Your task to perform on an android device: create a new album in the google photos Image 0: 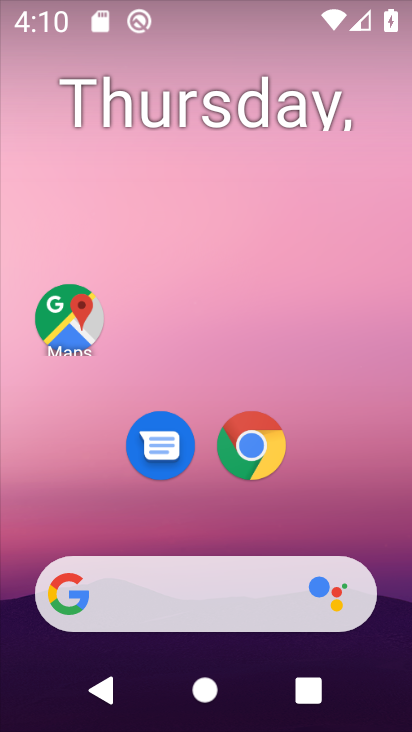
Step 0: drag from (370, 440) to (394, 258)
Your task to perform on an android device: create a new album in the google photos Image 1: 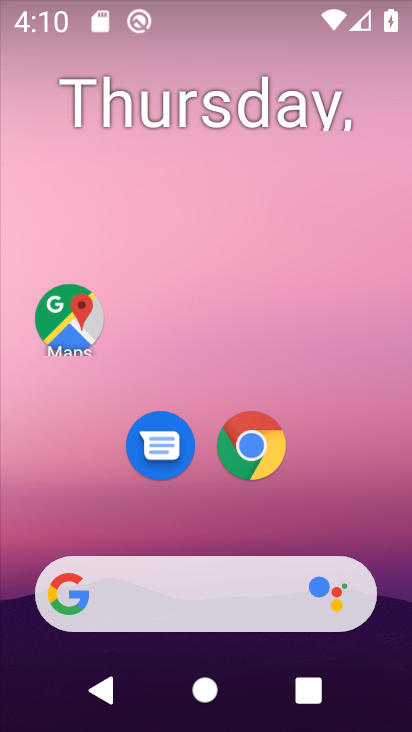
Step 1: click (388, 107)
Your task to perform on an android device: create a new album in the google photos Image 2: 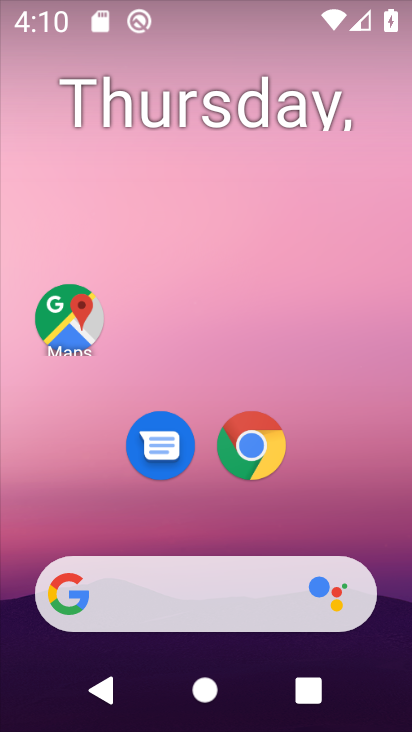
Step 2: drag from (325, 381) to (340, 104)
Your task to perform on an android device: create a new album in the google photos Image 3: 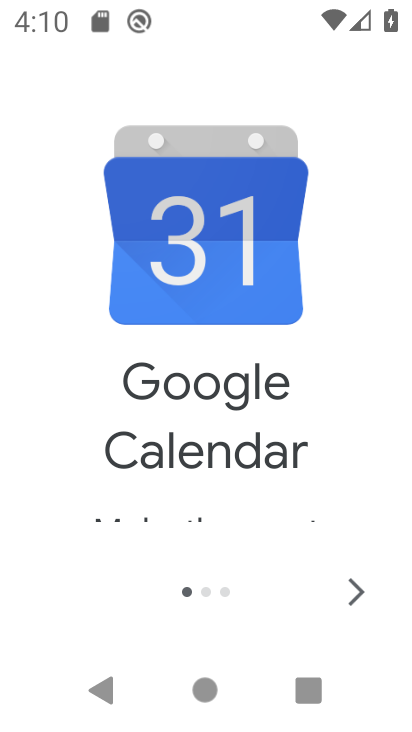
Step 3: press home button
Your task to perform on an android device: create a new album in the google photos Image 4: 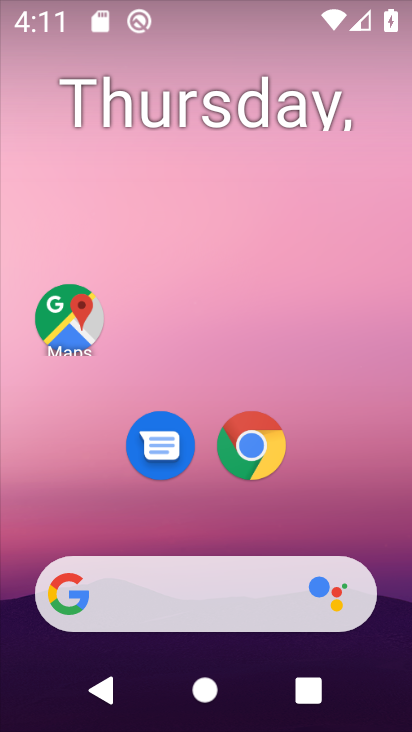
Step 4: drag from (308, 492) to (352, 101)
Your task to perform on an android device: create a new album in the google photos Image 5: 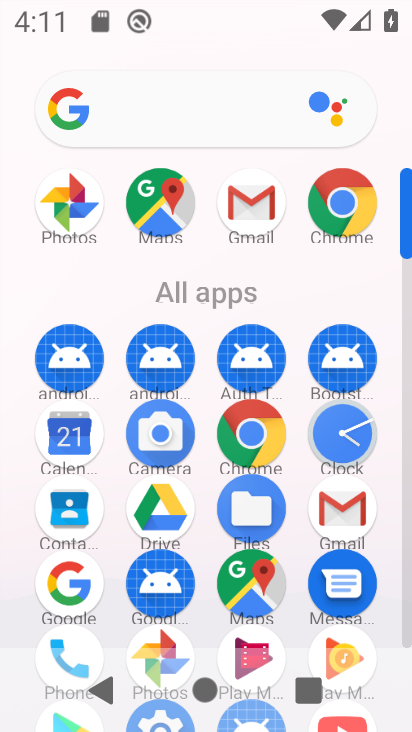
Step 5: click (62, 206)
Your task to perform on an android device: create a new album in the google photos Image 6: 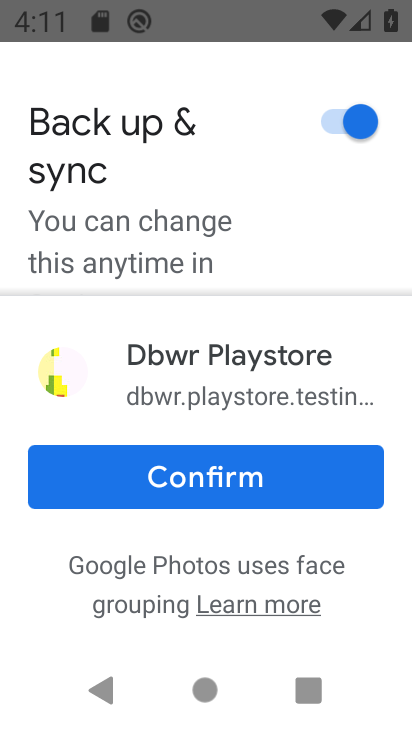
Step 6: click (269, 486)
Your task to perform on an android device: create a new album in the google photos Image 7: 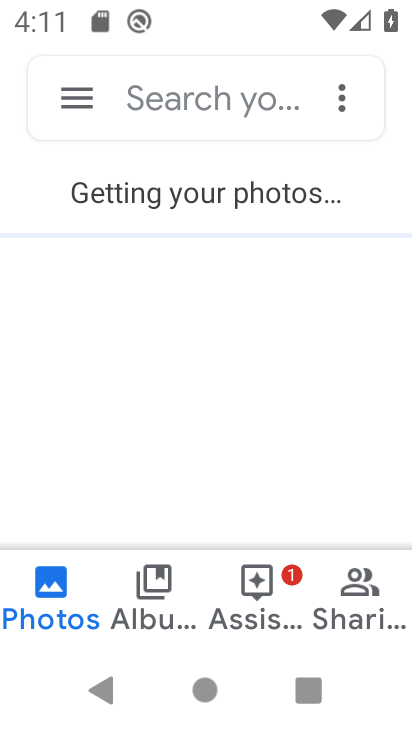
Step 7: click (43, 573)
Your task to perform on an android device: create a new album in the google photos Image 8: 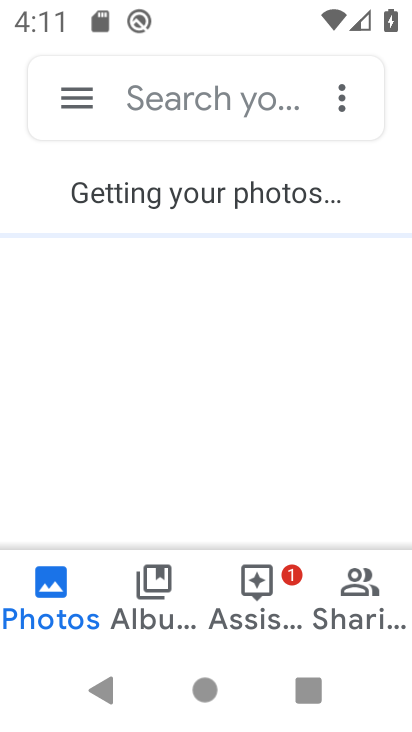
Step 8: click (143, 390)
Your task to perform on an android device: create a new album in the google photos Image 9: 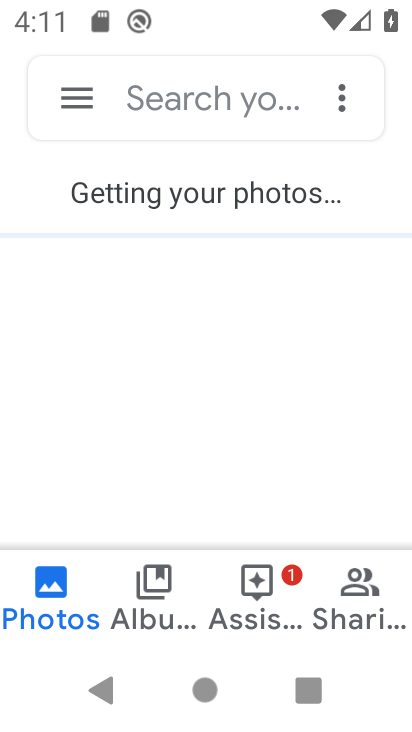
Step 9: click (132, 182)
Your task to perform on an android device: create a new album in the google photos Image 10: 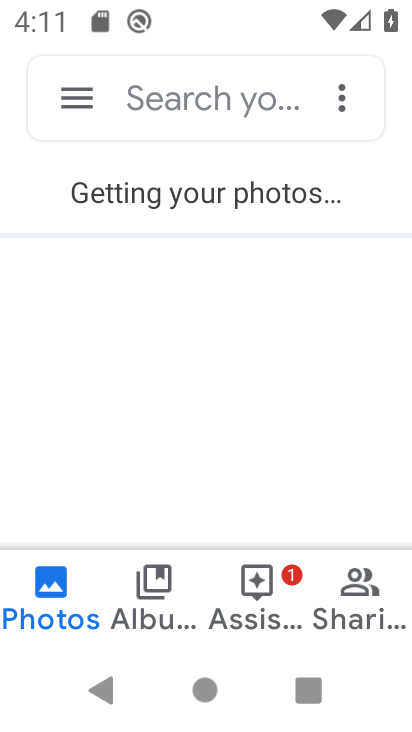
Step 10: click (66, 101)
Your task to perform on an android device: create a new album in the google photos Image 11: 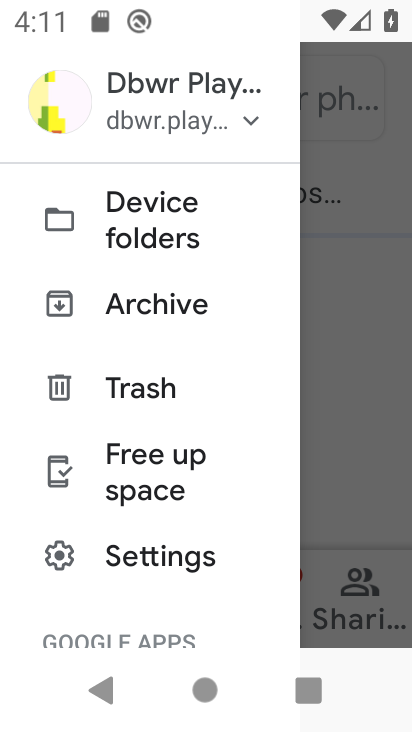
Step 11: click (329, 396)
Your task to perform on an android device: create a new album in the google photos Image 12: 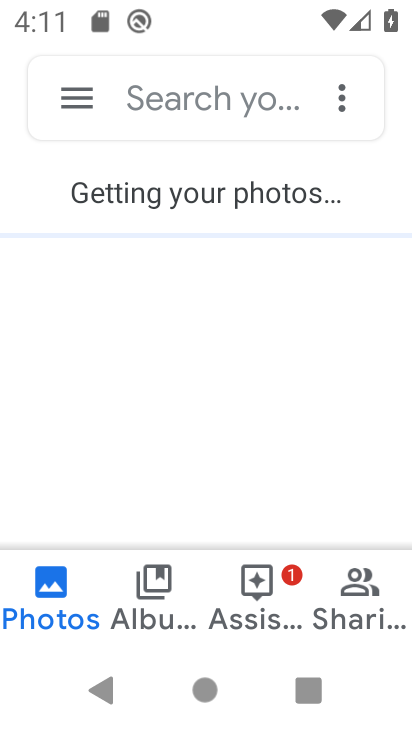
Step 12: click (179, 183)
Your task to perform on an android device: create a new album in the google photos Image 13: 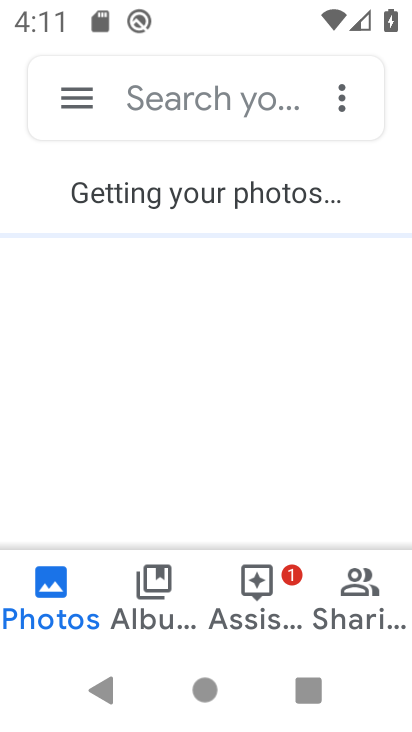
Step 13: click (163, 592)
Your task to perform on an android device: create a new album in the google photos Image 14: 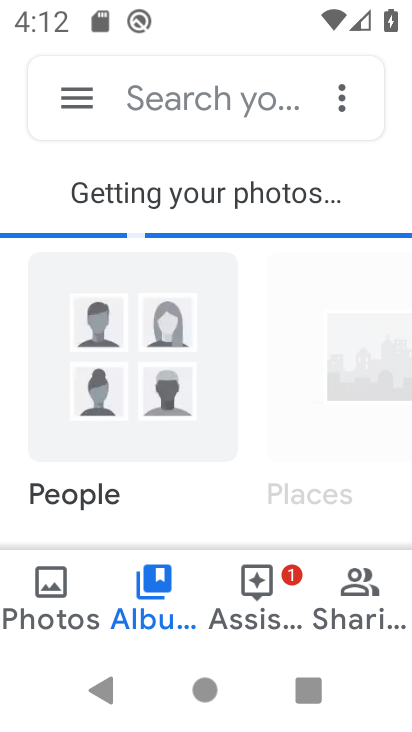
Step 14: drag from (352, 430) to (144, 416)
Your task to perform on an android device: create a new album in the google photos Image 15: 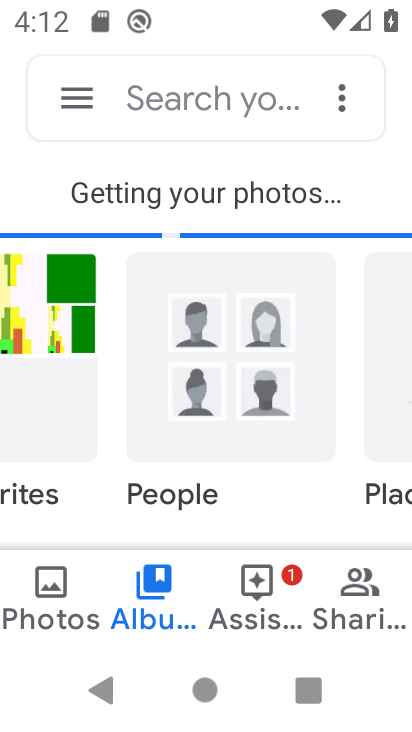
Step 15: click (61, 606)
Your task to perform on an android device: create a new album in the google photos Image 16: 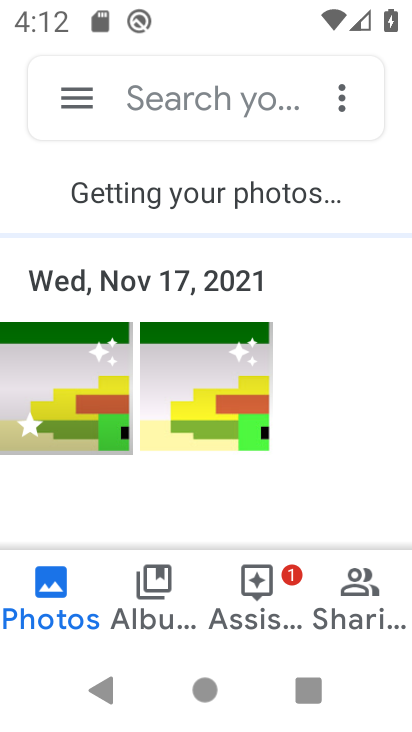
Step 16: click (110, 390)
Your task to perform on an android device: create a new album in the google photos Image 17: 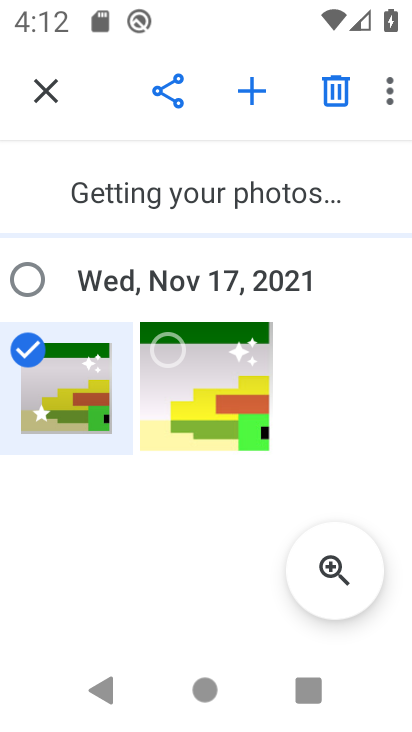
Step 17: click (174, 341)
Your task to perform on an android device: create a new album in the google photos Image 18: 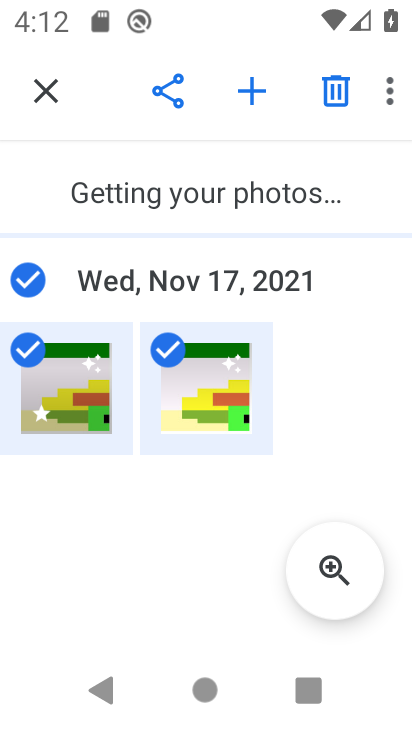
Step 18: click (242, 99)
Your task to perform on an android device: create a new album in the google photos Image 19: 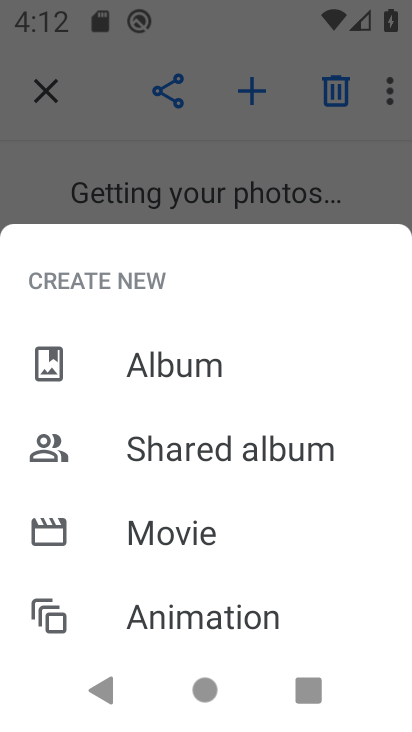
Step 19: click (191, 371)
Your task to perform on an android device: create a new album in the google photos Image 20: 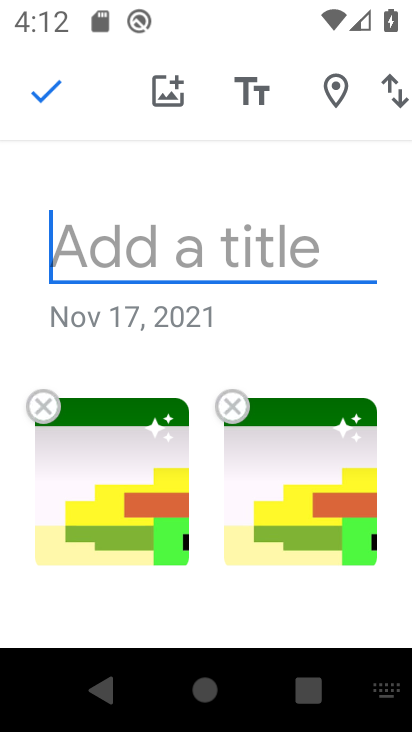
Step 20: type "love"
Your task to perform on an android device: create a new album in the google photos Image 21: 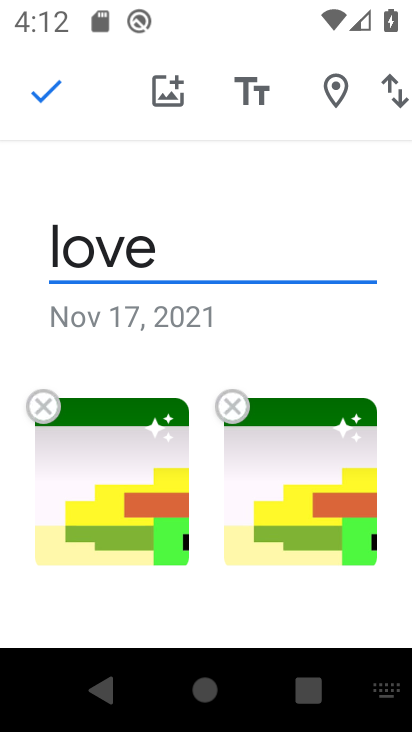
Step 21: click (50, 82)
Your task to perform on an android device: create a new album in the google photos Image 22: 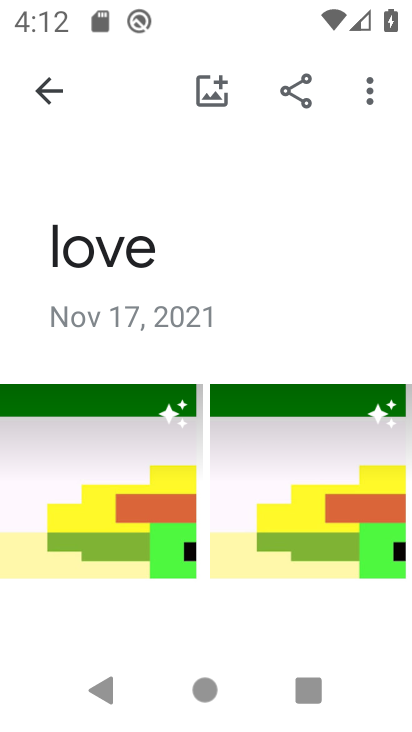
Step 22: task complete